Your task to perform on an android device: move a message to another label in the gmail app Image 0: 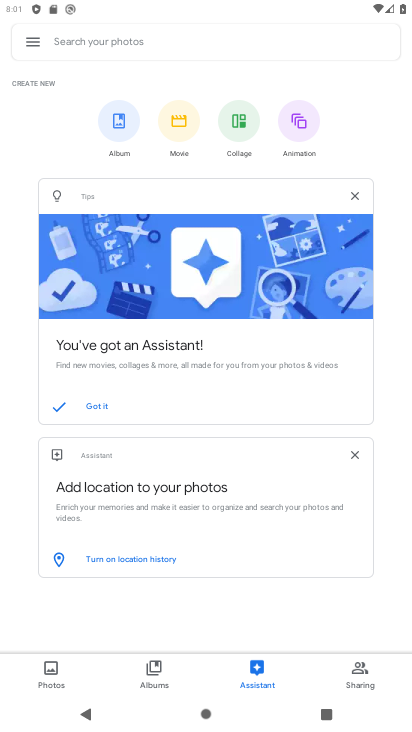
Step 0: press home button
Your task to perform on an android device: move a message to another label in the gmail app Image 1: 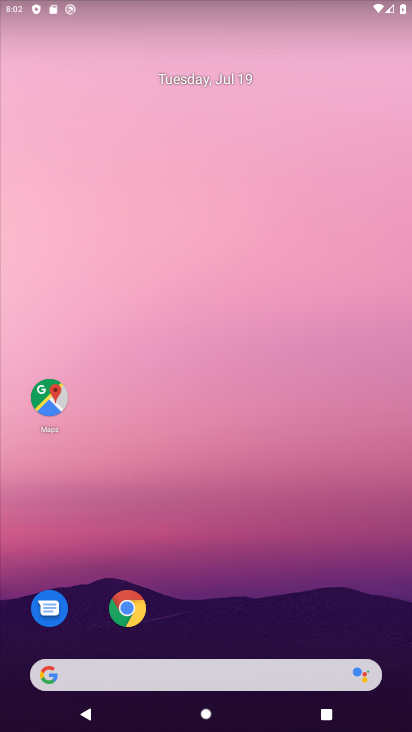
Step 1: drag from (209, 670) to (213, 117)
Your task to perform on an android device: move a message to another label in the gmail app Image 2: 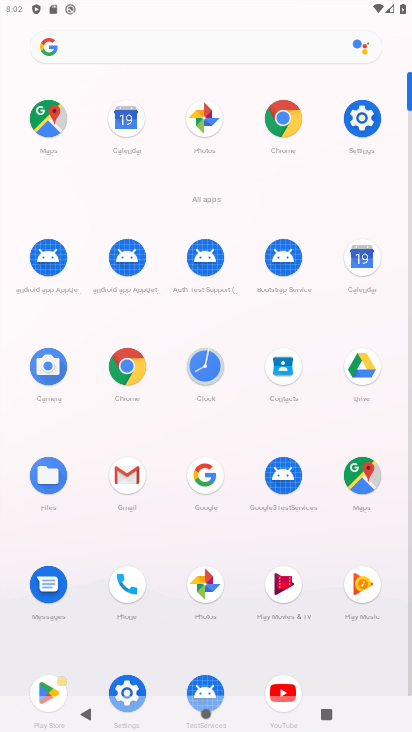
Step 2: click (119, 471)
Your task to perform on an android device: move a message to another label in the gmail app Image 3: 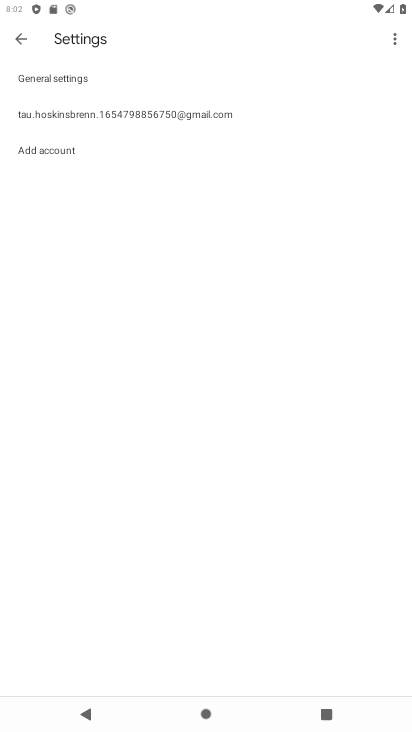
Step 3: click (22, 42)
Your task to perform on an android device: move a message to another label in the gmail app Image 4: 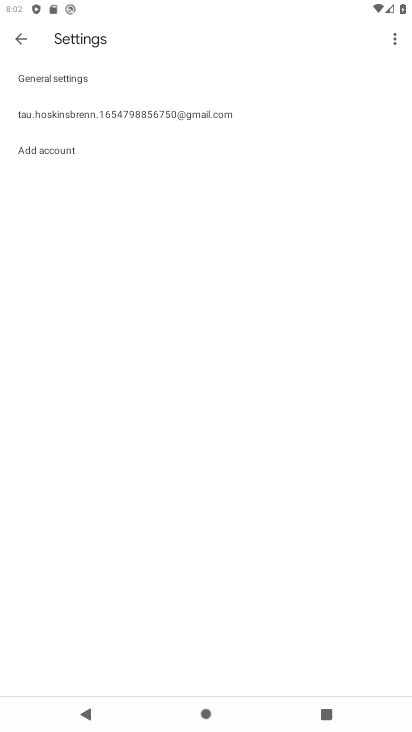
Step 4: click (22, 42)
Your task to perform on an android device: move a message to another label in the gmail app Image 5: 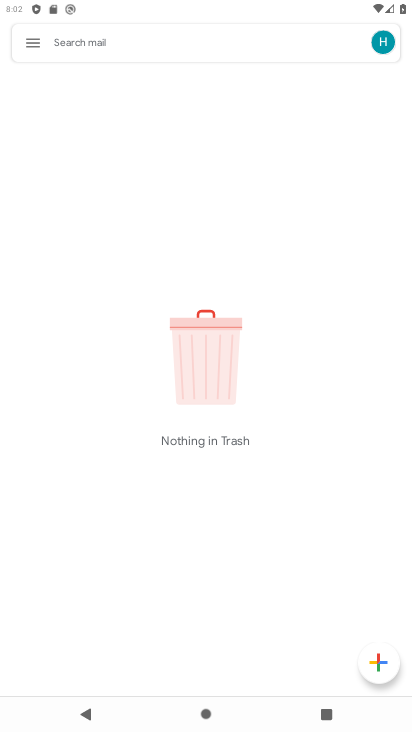
Step 5: click (34, 50)
Your task to perform on an android device: move a message to another label in the gmail app Image 6: 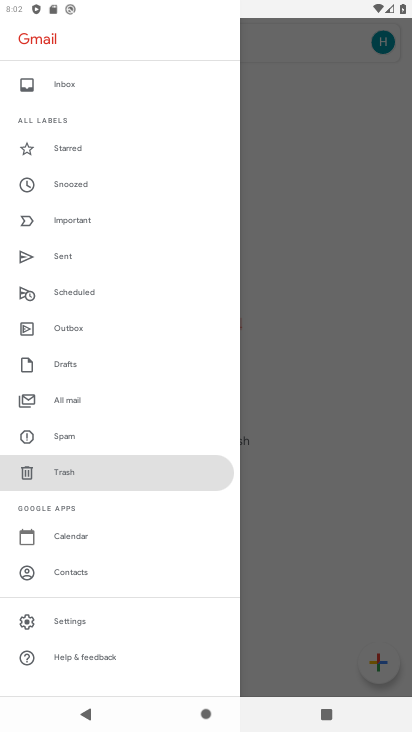
Step 6: click (102, 405)
Your task to perform on an android device: move a message to another label in the gmail app Image 7: 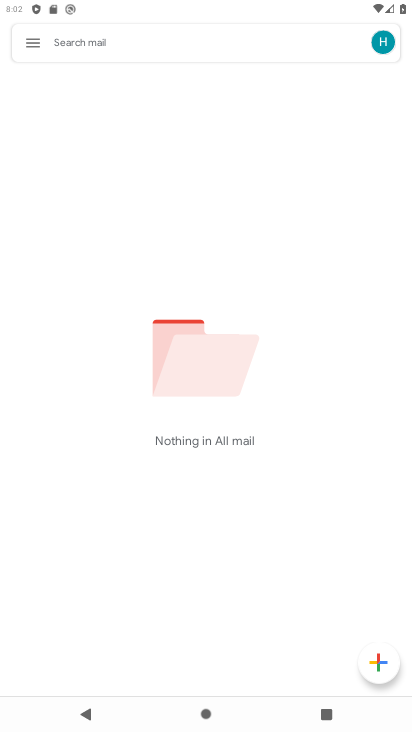
Step 7: task complete